Your task to perform on an android device: manage bookmarks in the chrome app Image 0: 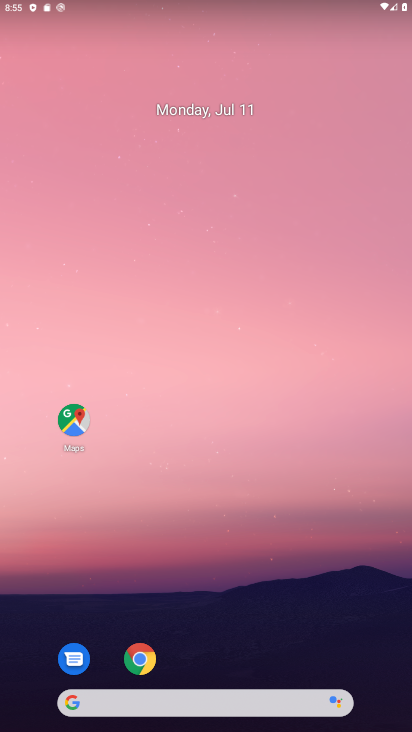
Step 0: drag from (348, 642) to (321, 87)
Your task to perform on an android device: manage bookmarks in the chrome app Image 1: 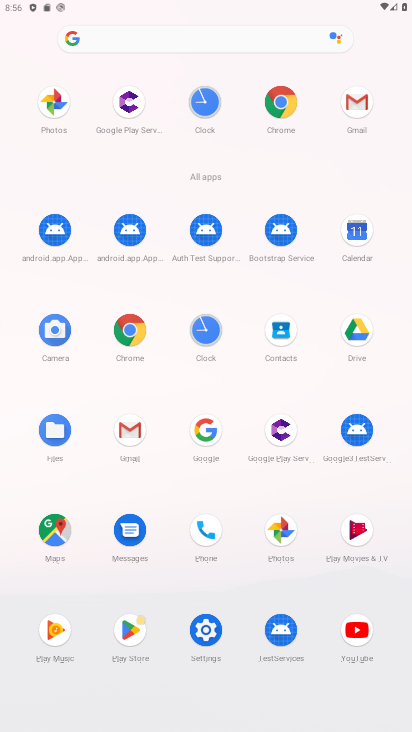
Step 1: click (128, 330)
Your task to perform on an android device: manage bookmarks in the chrome app Image 2: 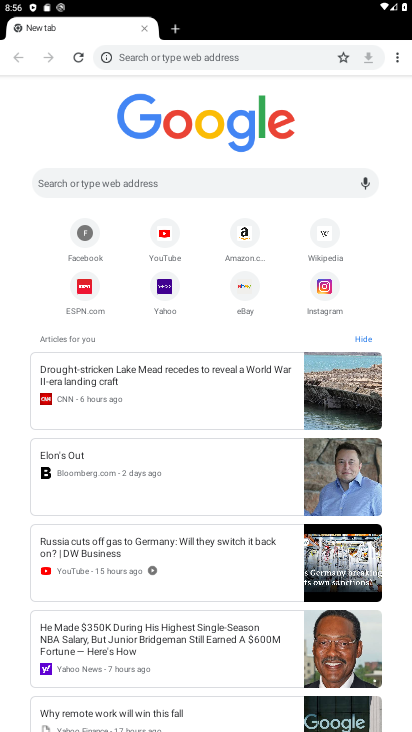
Step 2: click (398, 58)
Your task to perform on an android device: manage bookmarks in the chrome app Image 3: 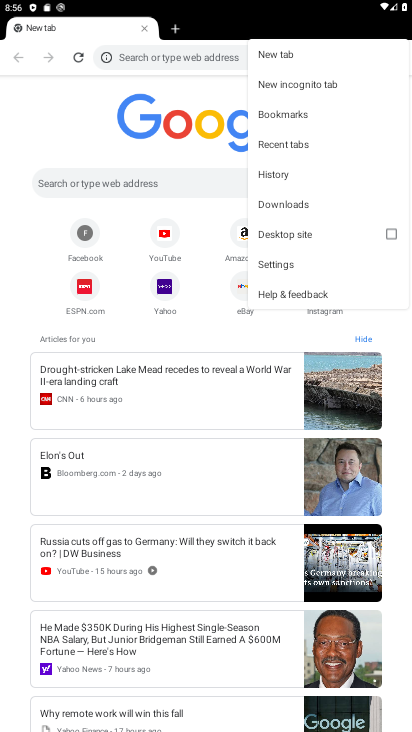
Step 3: click (303, 117)
Your task to perform on an android device: manage bookmarks in the chrome app Image 4: 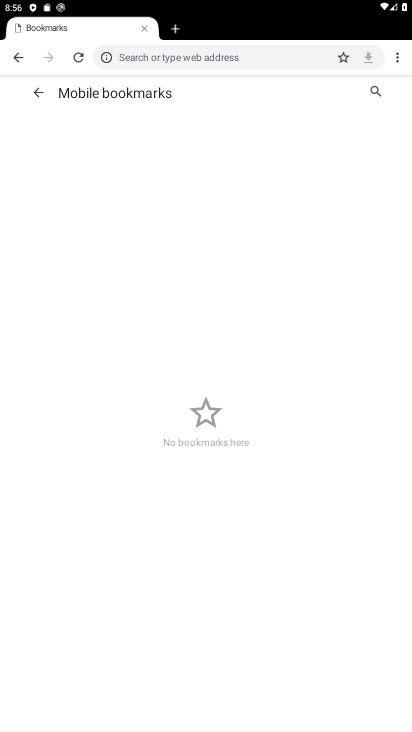
Step 4: task complete